Your task to perform on an android device: What is the capital of Sweden? Image 0: 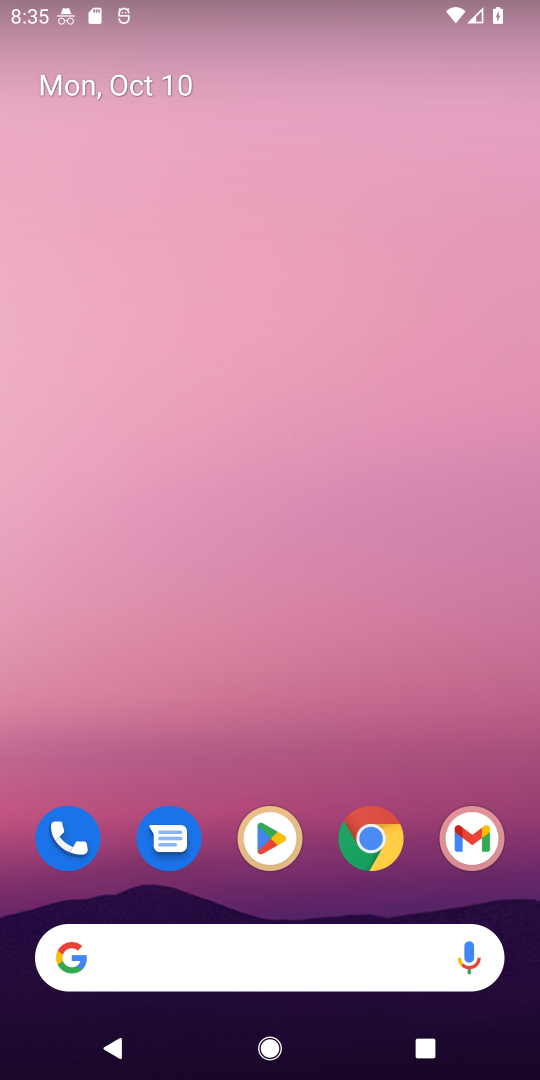
Step 0: click (363, 832)
Your task to perform on an android device: What is the capital of Sweden? Image 1: 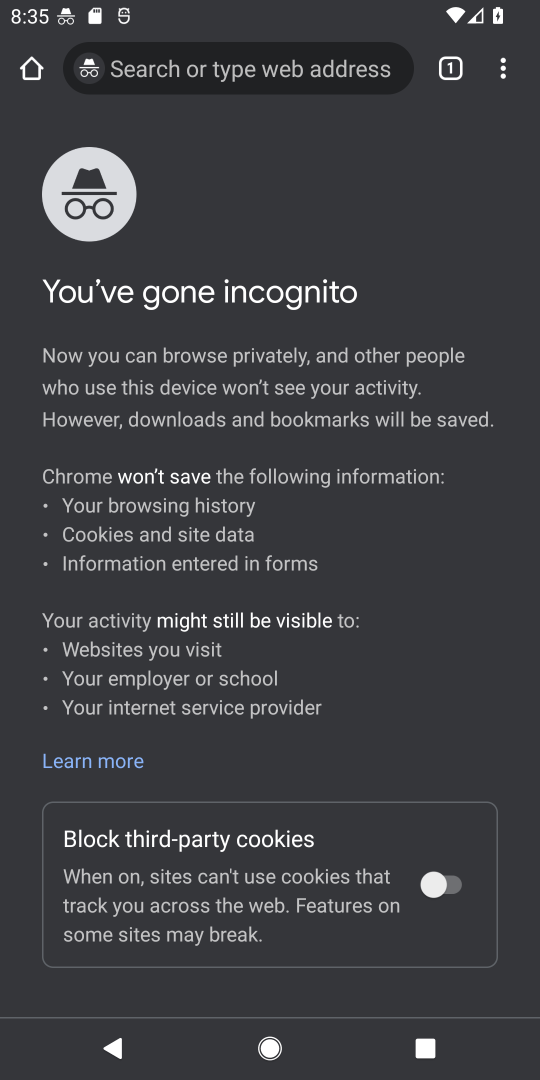
Step 1: click (452, 66)
Your task to perform on an android device: What is the capital of Sweden? Image 2: 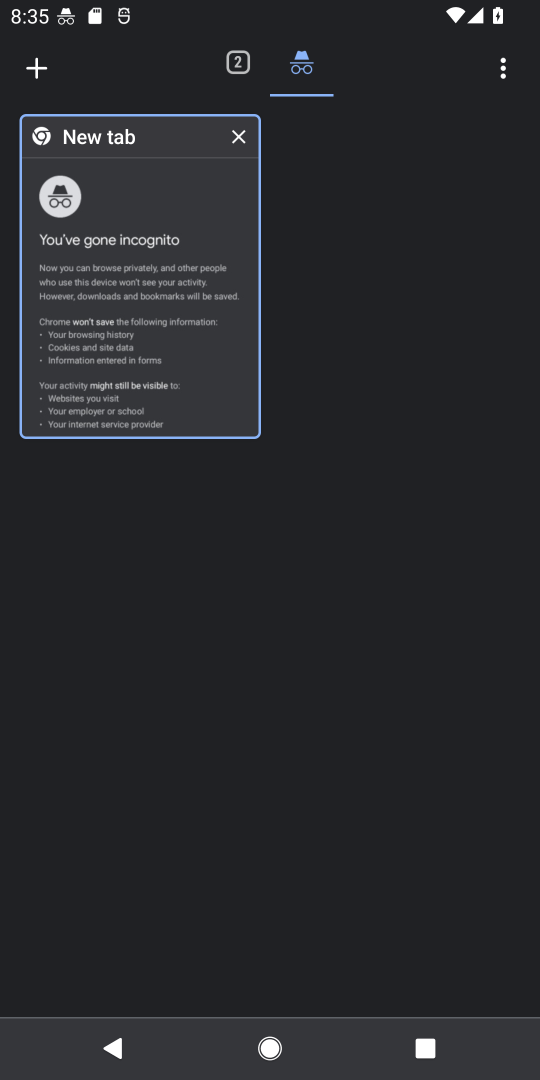
Step 2: click (39, 75)
Your task to perform on an android device: What is the capital of Sweden? Image 3: 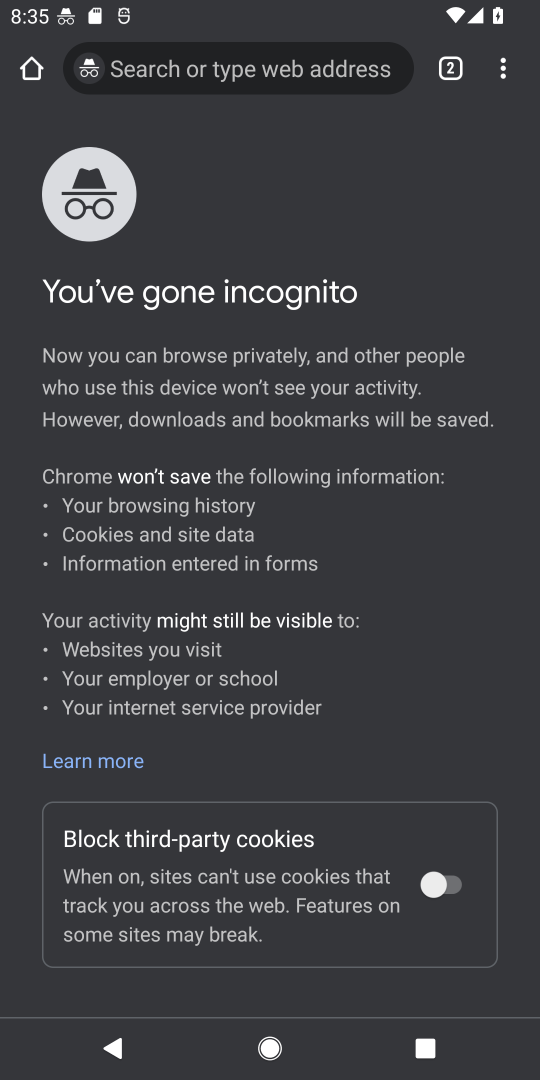
Step 3: click (227, 66)
Your task to perform on an android device: What is the capital of Sweden? Image 4: 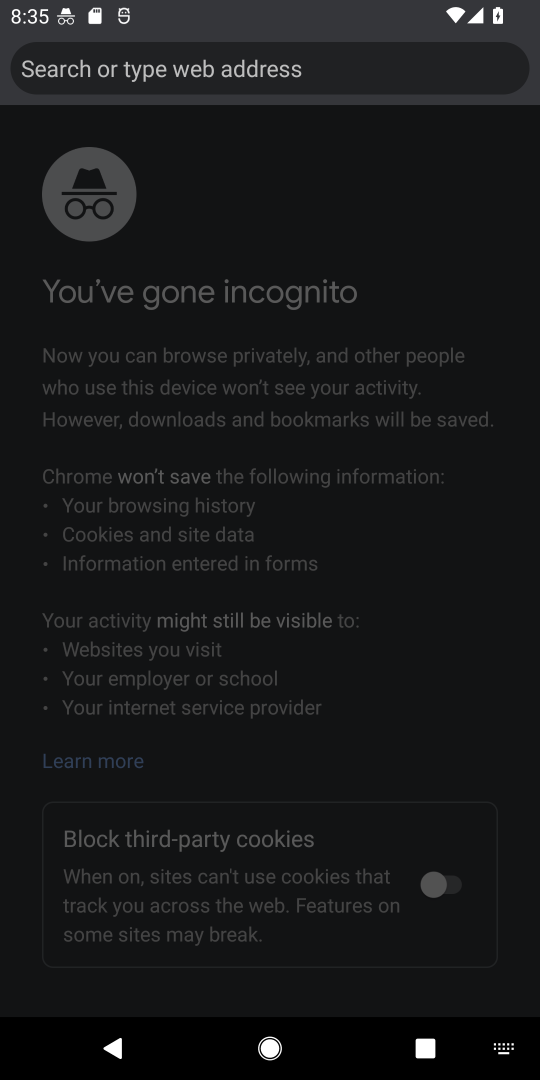
Step 4: click (446, 64)
Your task to perform on an android device: What is the capital of Sweden? Image 5: 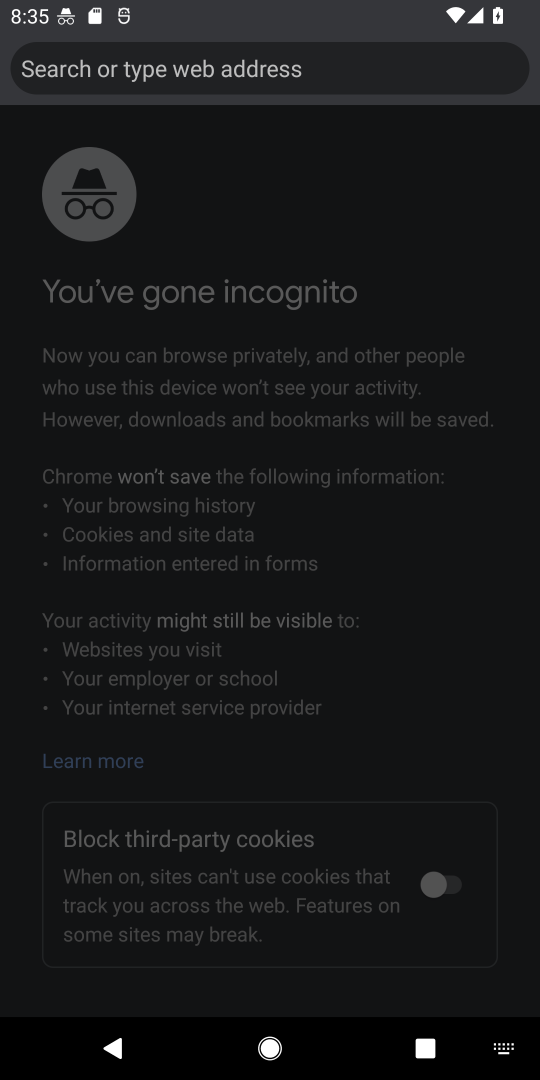
Step 5: press back button
Your task to perform on an android device: What is the capital of Sweden? Image 6: 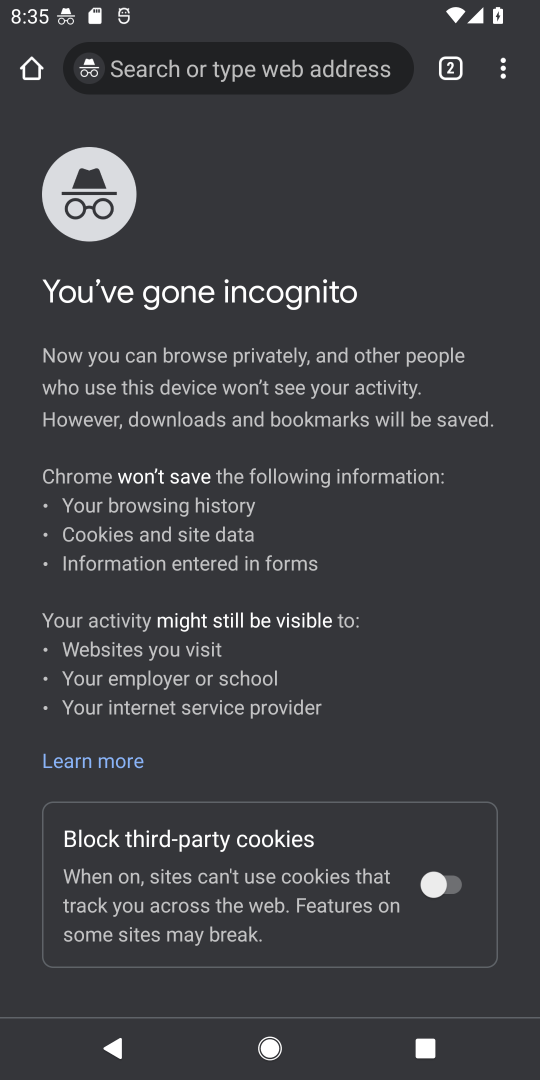
Step 6: click (448, 73)
Your task to perform on an android device: What is the capital of Sweden? Image 7: 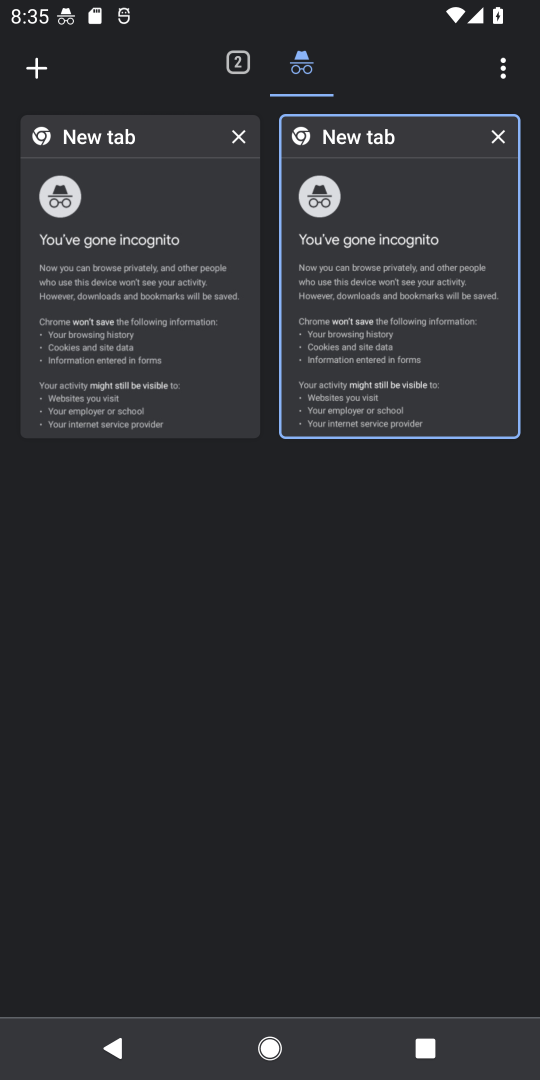
Step 7: click (241, 64)
Your task to perform on an android device: What is the capital of Sweden? Image 8: 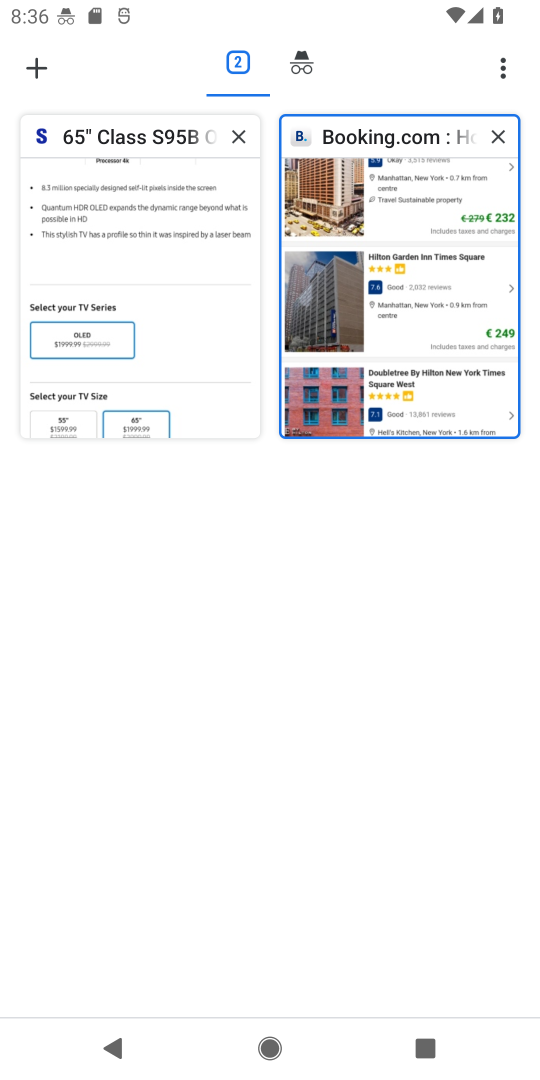
Step 8: click (32, 68)
Your task to perform on an android device: What is the capital of Sweden? Image 9: 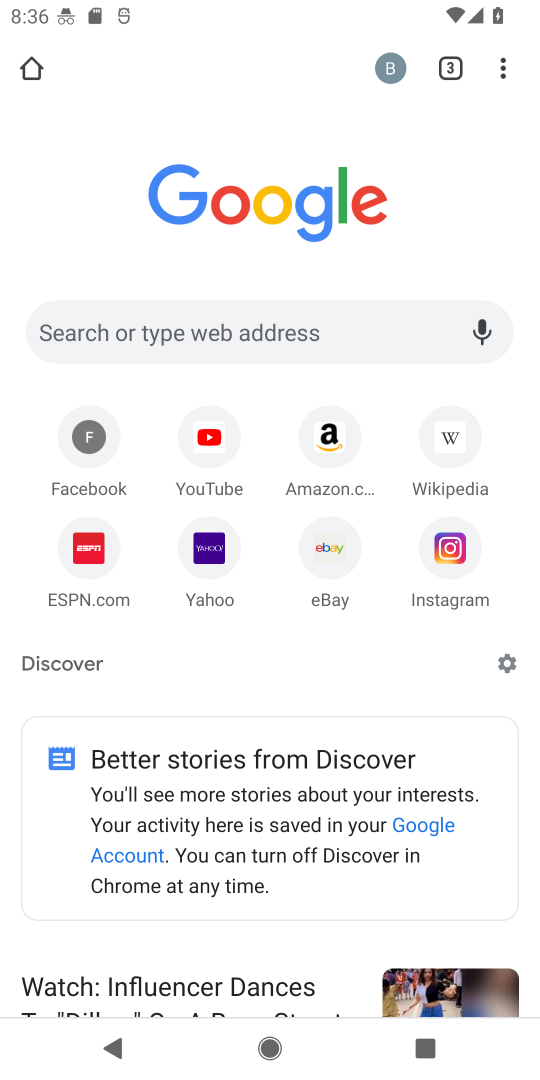
Step 9: click (160, 331)
Your task to perform on an android device: What is the capital of Sweden? Image 10: 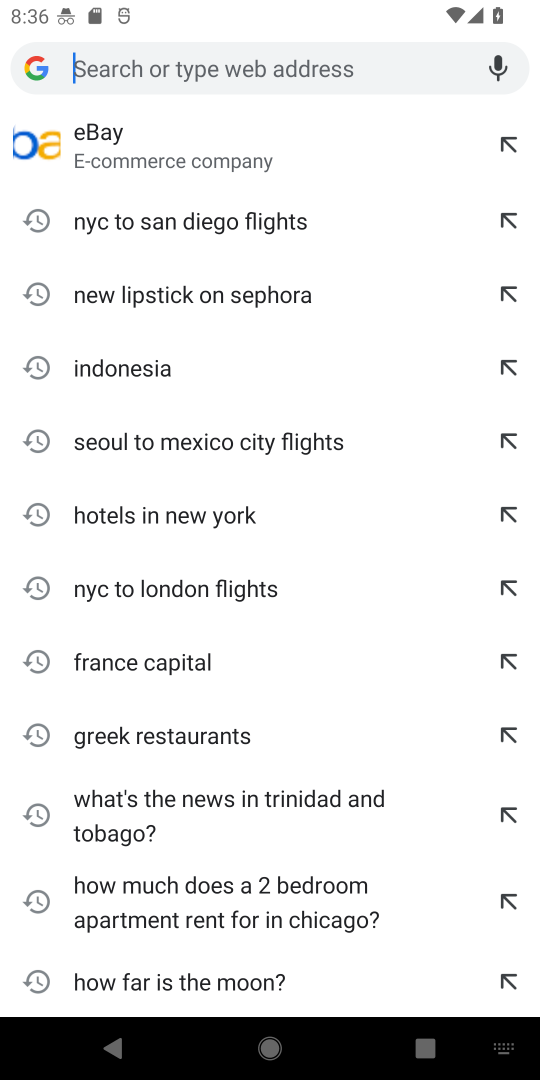
Step 10: type "capital of sweden?"
Your task to perform on an android device: What is the capital of Sweden? Image 11: 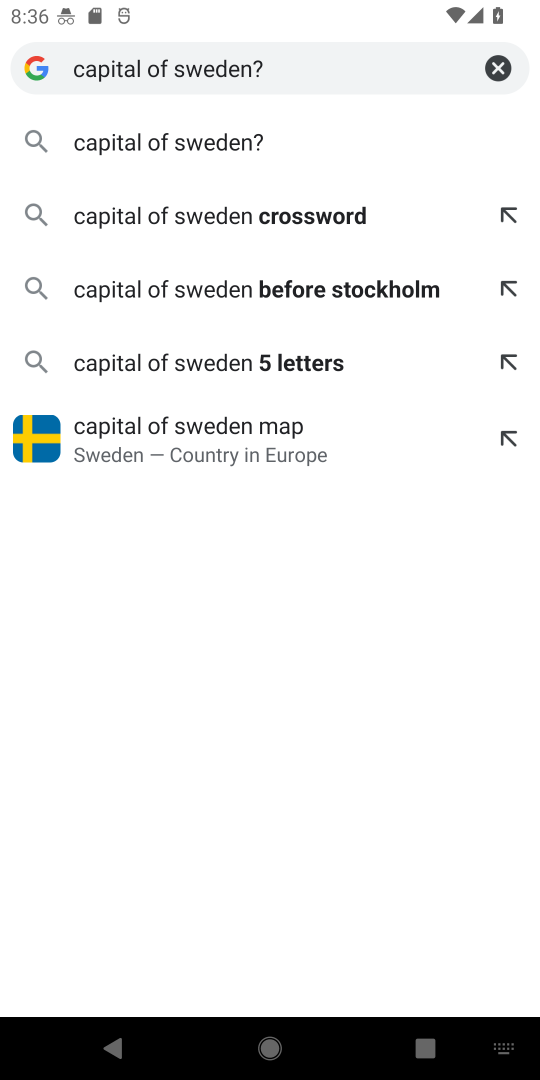
Step 11: click (161, 141)
Your task to perform on an android device: What is the capital of Sweden? Image 12: 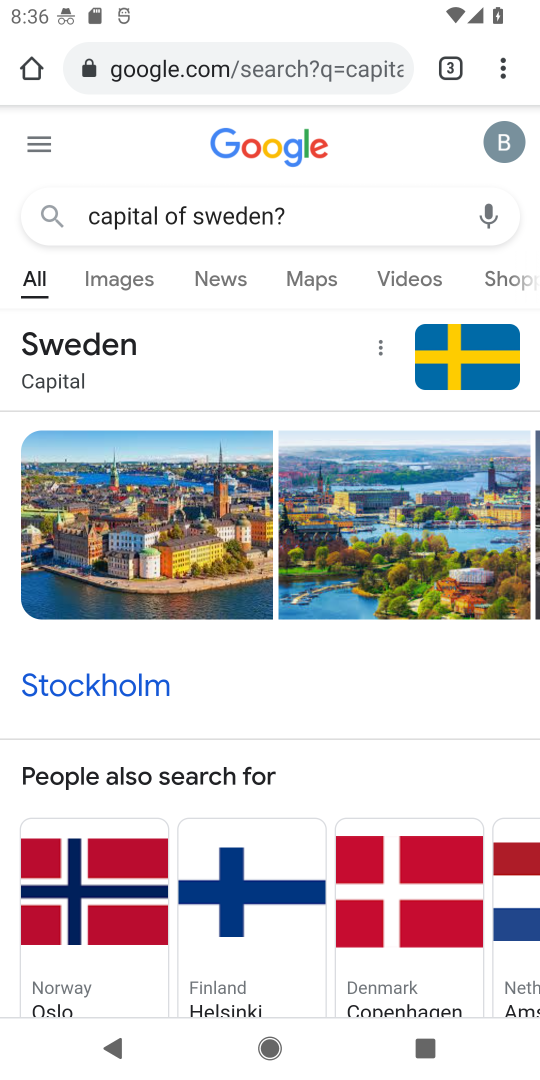
Step 12: task complete